Your task to perform on an android device: Open Chrome and go to the settings page Image 0: 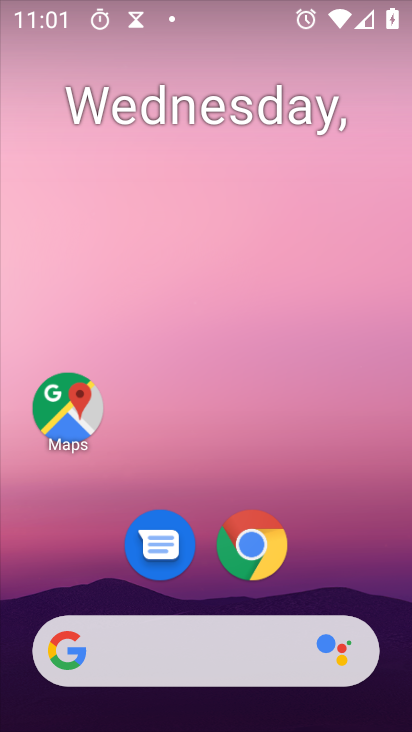
Step 0: press home button
Your task to perform on an android device: Open Chrome and go to the settings page Image 1: 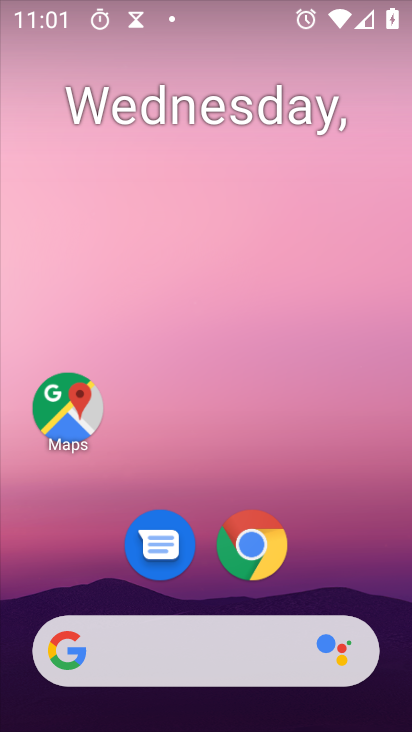
Step 1: click (251, 564)
Your task to perform on an android device: Open Chrome and go to the settings page Image 2: 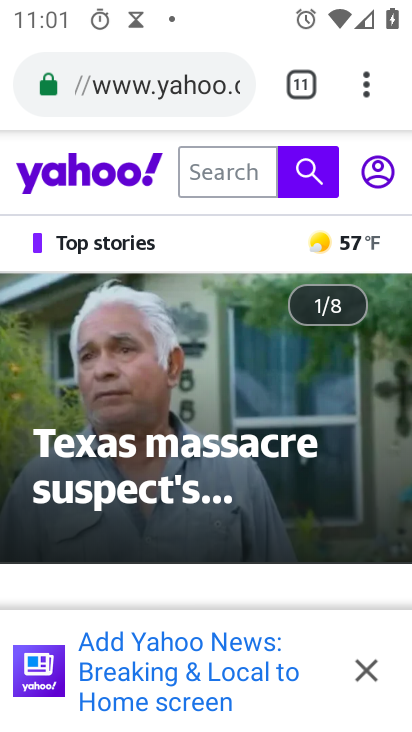
Step 2: task complete